Your task to perform on an android device: What's the price of the Galaxy phone on eBay? Image 0: 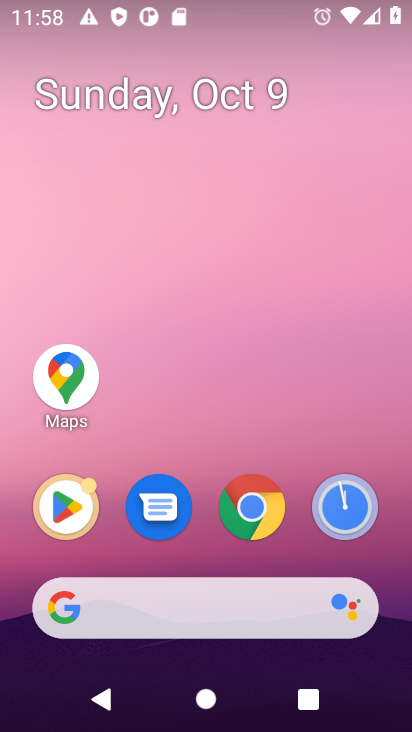
Step 0: click (218, 610)
Your task to perform on an android device: What's the price of the Galaxy phone on eBay? Image 1: 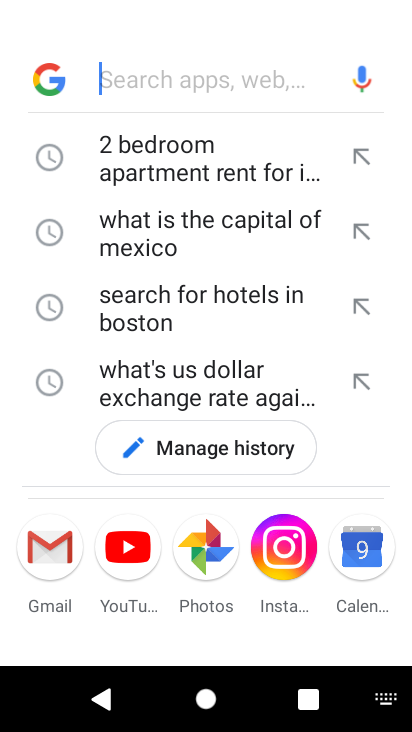
Step 1: press enter
Your task to perform on an android device: What's the price of the Galaxy phone on eBay? Image 2: 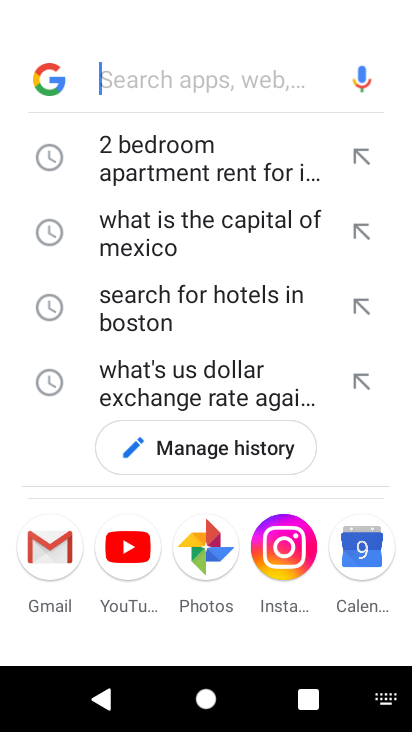
Step 2: type "What's the price of the Galaxy phone on eBay"
Your task to perform on an android device: What's the price of the Galaxy phone on eBay? Image 3: 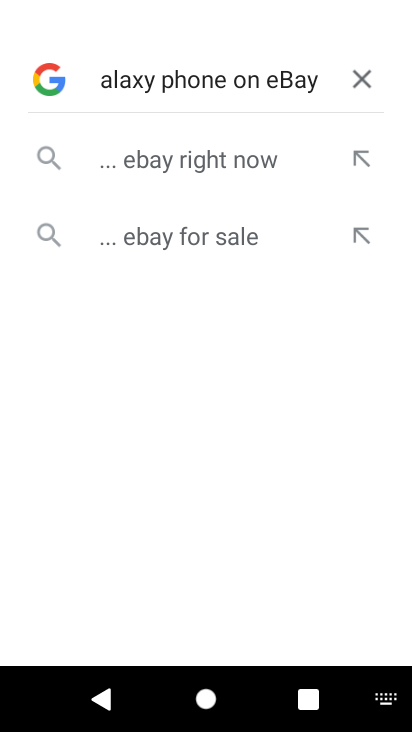
Step 3: press enter
Your task to perform on an android device: What's the price of the Galaxy phone on eBay? Image 4: 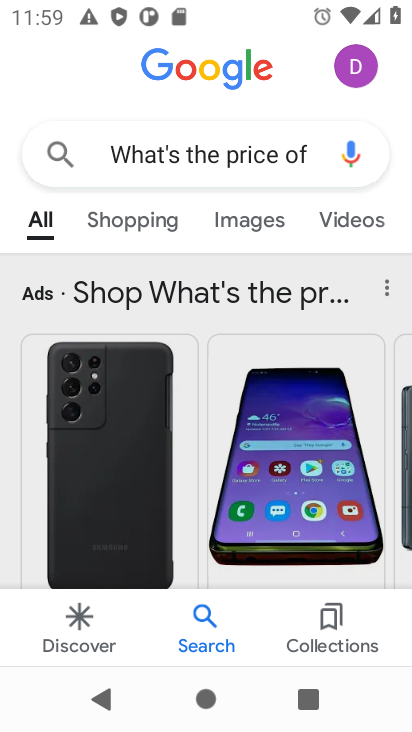
Step 4: task complete